Your task to perform on an android device: Open ESPN.com Image 0: 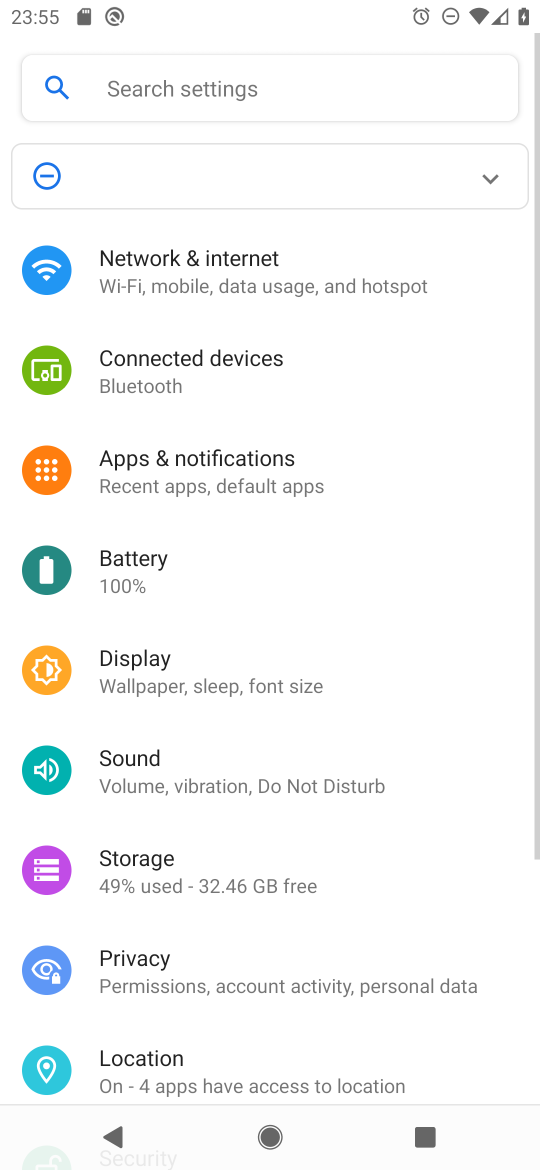
Step 0: press home button
Your task to perform on an android device: Open ESPN.com Image 1: 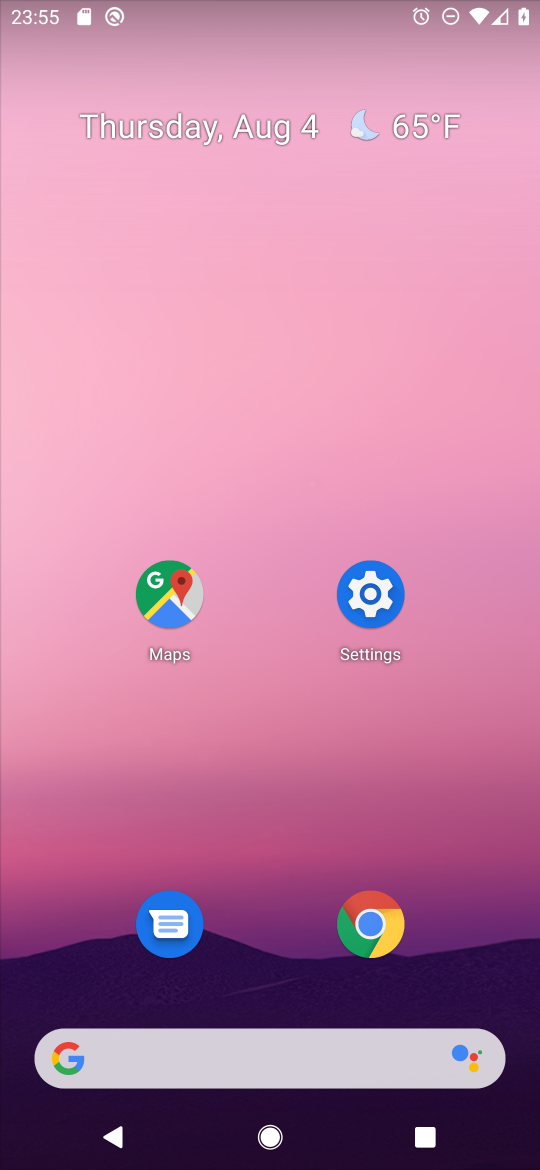
Step 1: click (375, 910)
Your task to perform on an android device: Open ESPN.com Image 2: 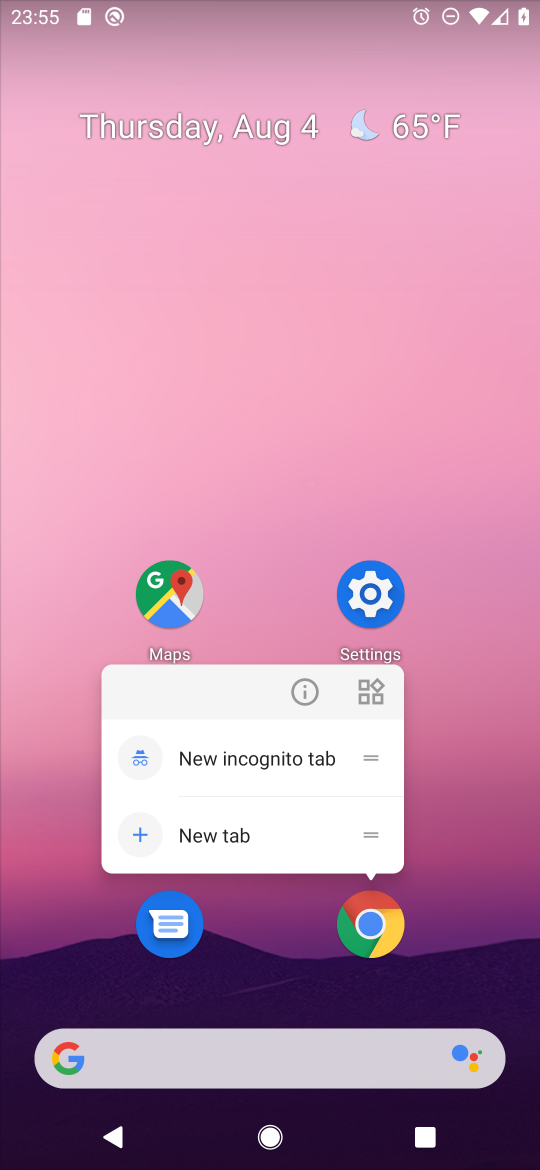
Step 2: click (363, 936)
Your task to perform on an android device: Open ESPN.com Image 3: 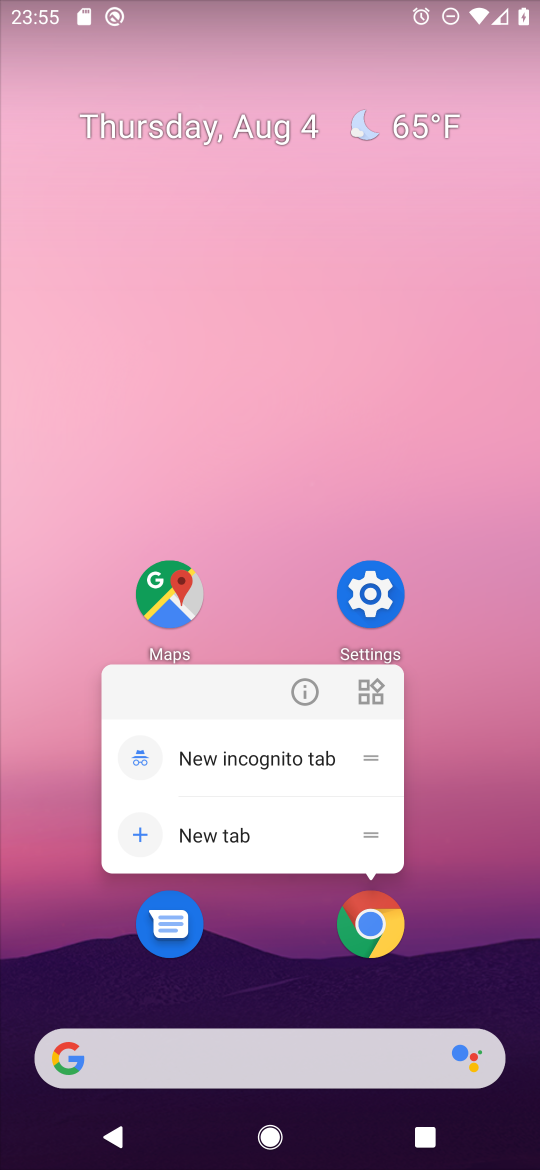
Step 3: click (372, 927)
Your task to perform on an android device: Open ESPN.com Image 4: 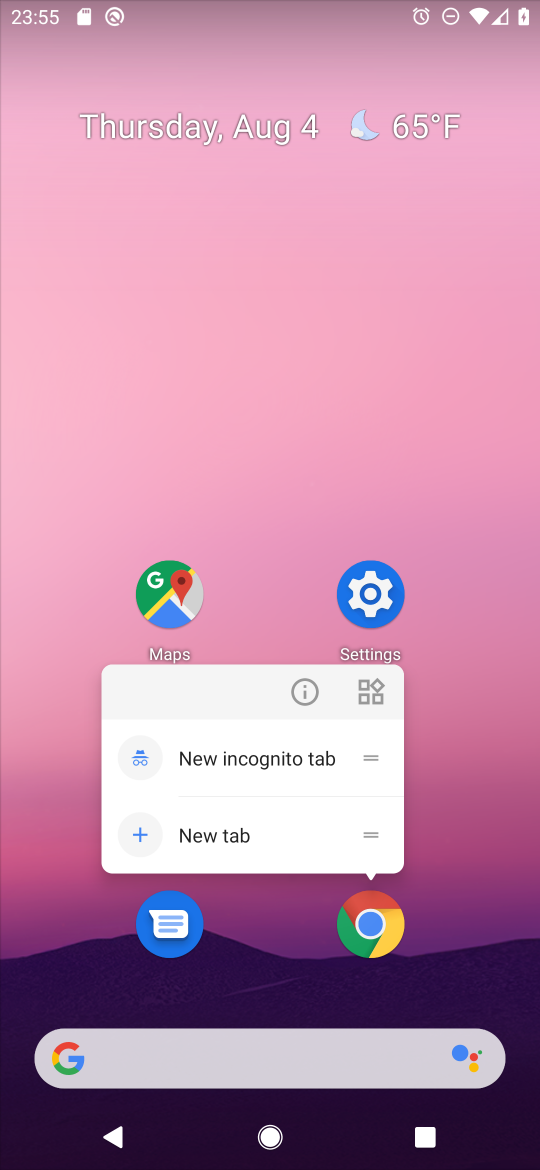
Step 4: click (373, 920)
Your task to perform on an android device: Open ESPN.com Image 5: 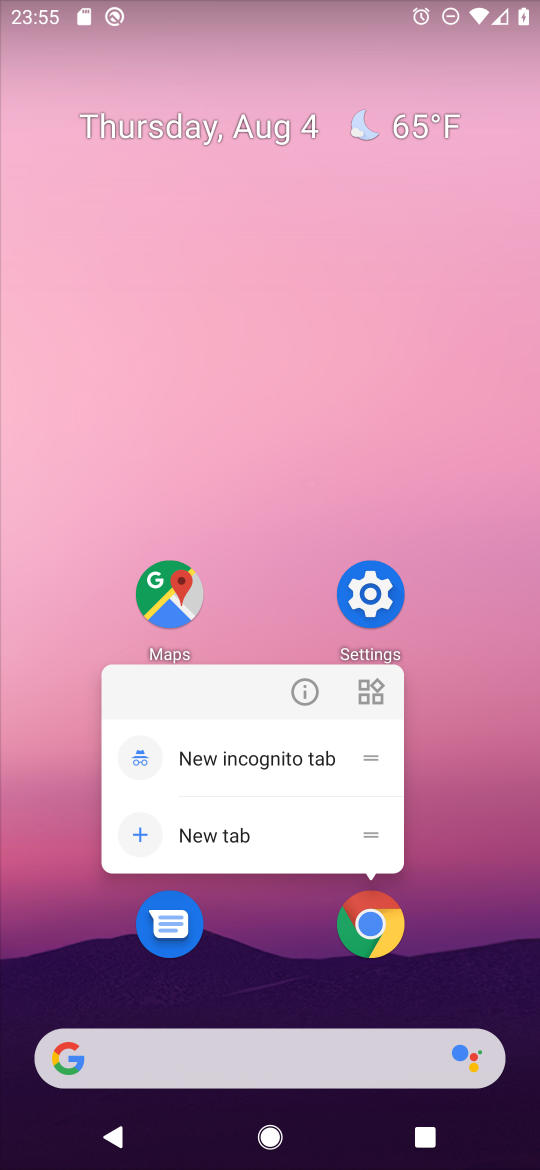
Step 5: click (373, 926)
Your task to perform on an android device: Open ESPN.com Image 6: 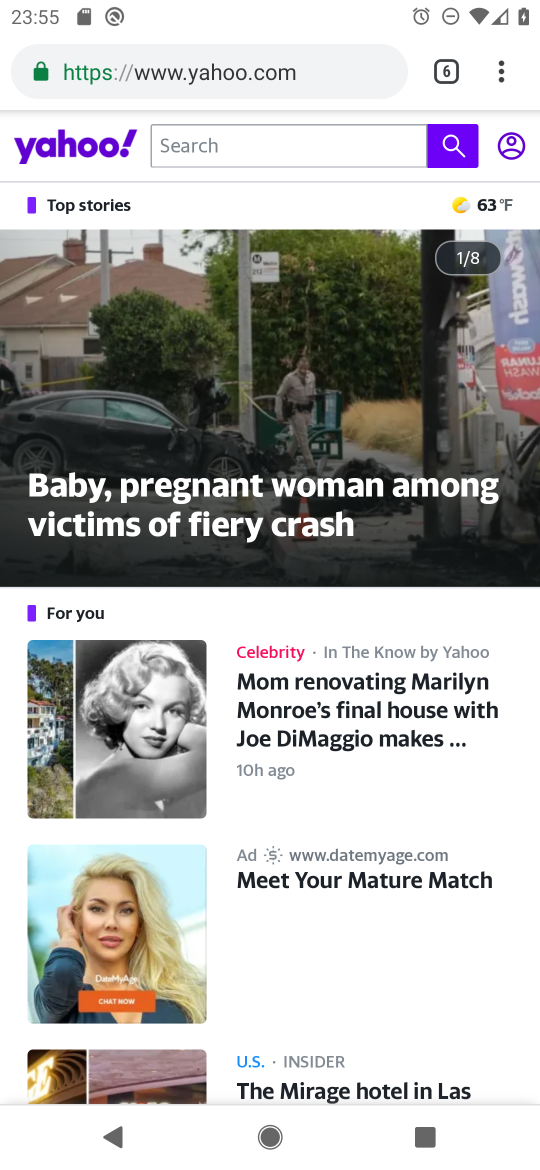
Step 6: drag from (502, 69) to (267, 143)
Your task to perform on an android device: Open ESPN.com Image 7: 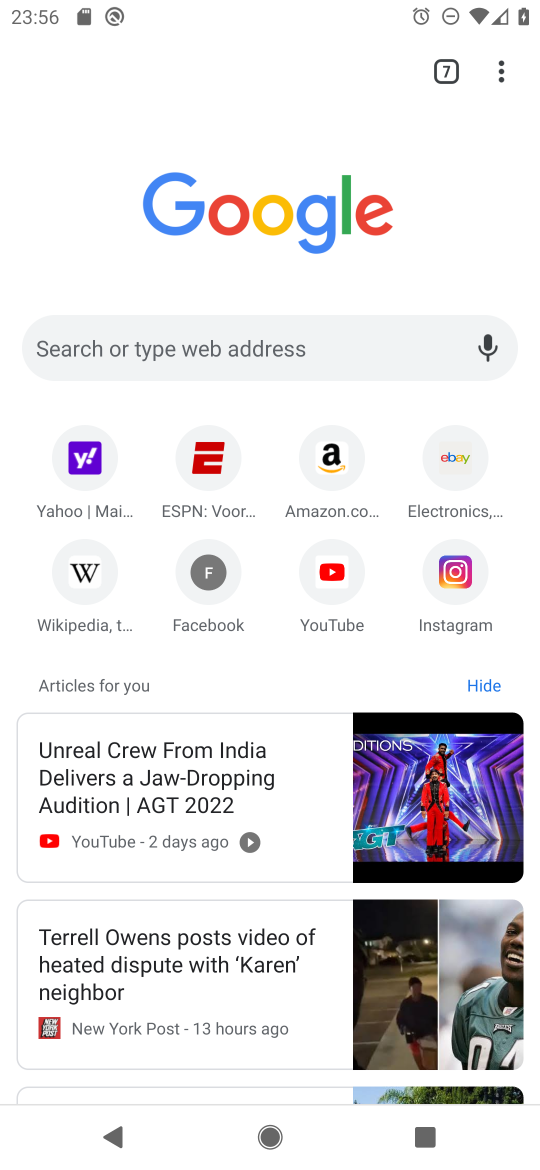
Step 7: click (210, 457)
Your task to perform on an android device: Open ESPN.com Image 8: 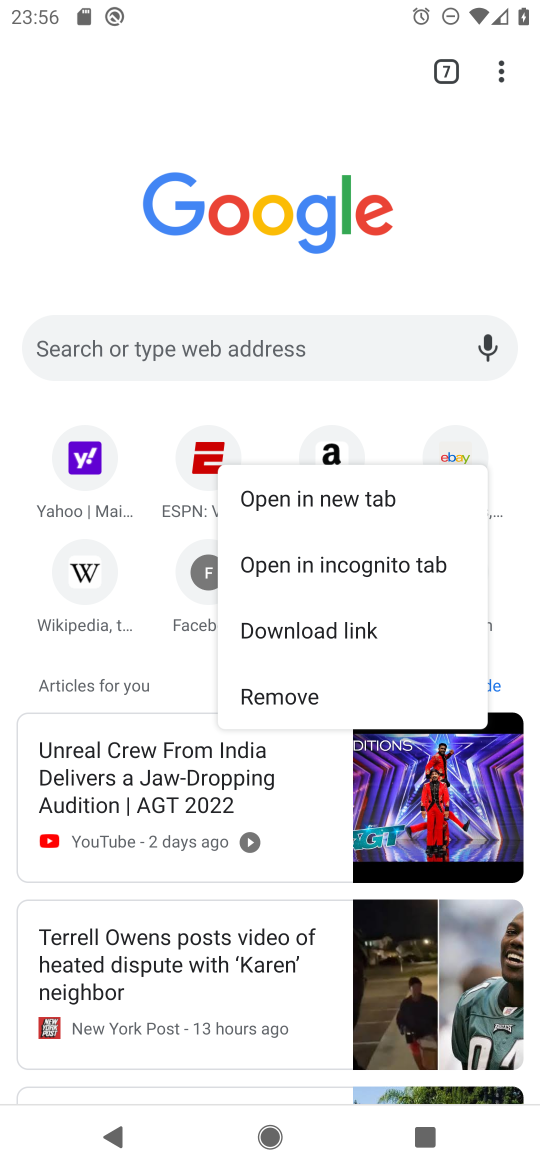
Step 8: click (210, 454)
Your task to perform on an android device: Open ESPN.com Image 9: 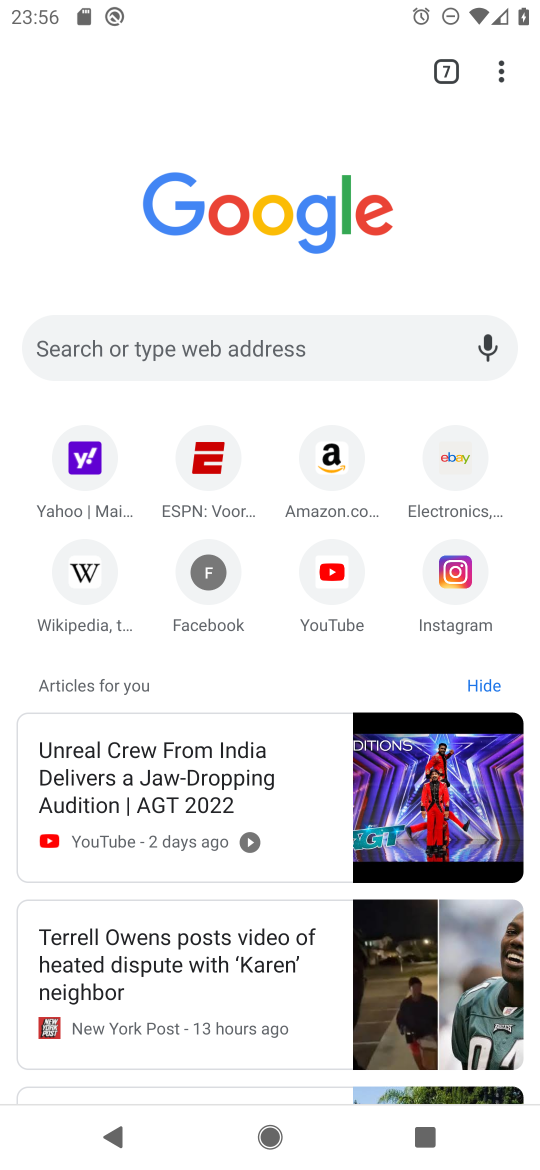
Step 9: click (206, 460)
Your task to perform on an android device: Open ESPN.com Image 10: 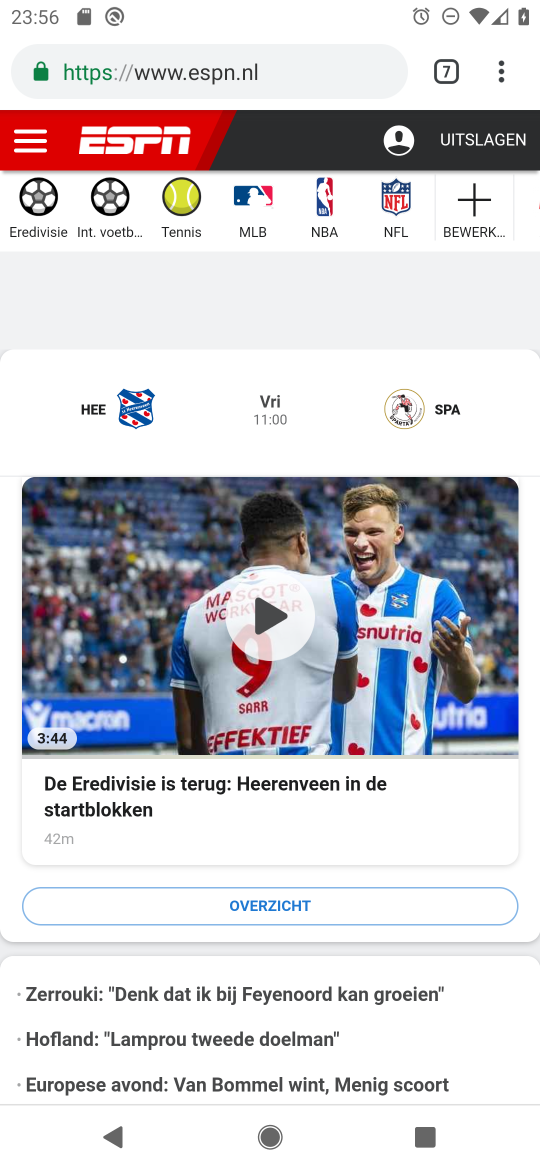
Step 10: task complete